Your task to perform on an android device: star an email in the gmail app Image 0: 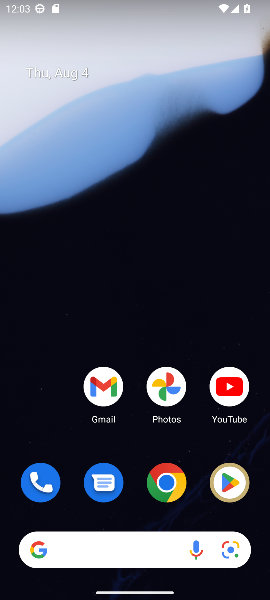
Step 0: click (104, 399)
Your task to perform on an android device: star an email in the gmail app Image 1: 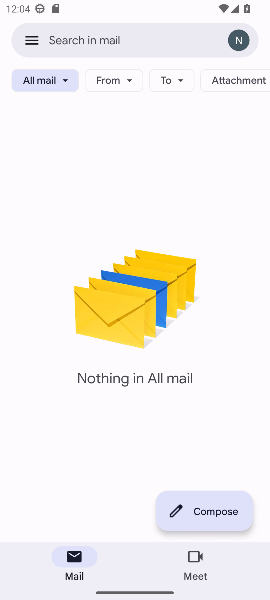
Step 1: click (29, 43)
Your task to perform on an android device: star an email in the gmail app Image 2: 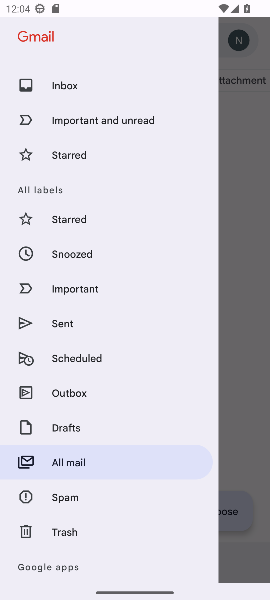
Step 2: click (115, 457)
Your task to perform on an android device: star an email in the gmail app Image 3: 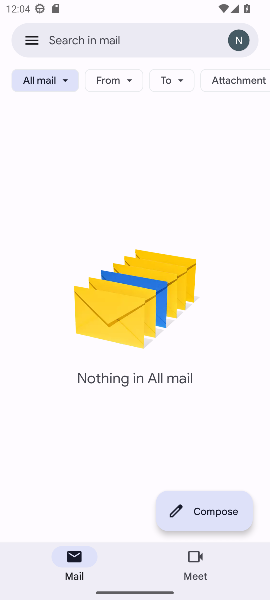
Step 3: task complete